Your task to perform on an android device: Open settings Image 0: 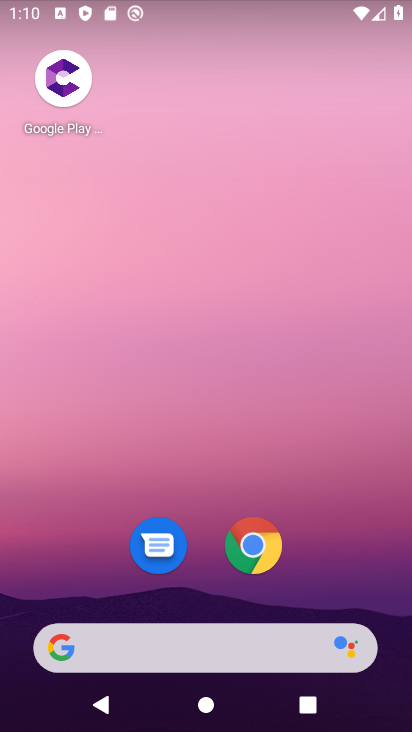
Step 0: task complete